Your task to perform on an android device: move a message to another label in the gmail app Image 0: 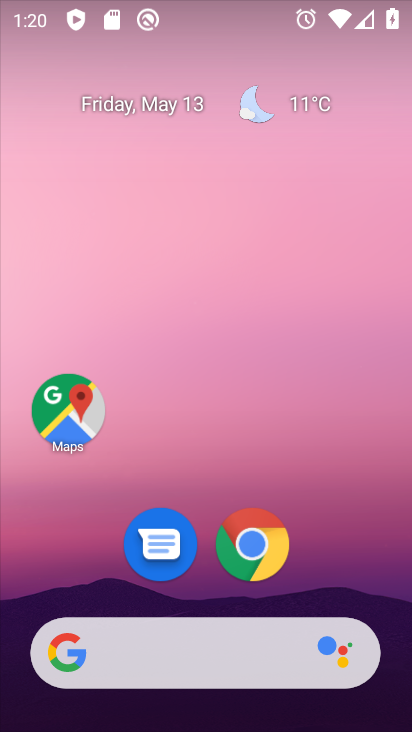
Step 0: drag from (220, 513) to (293, 210)
Your task to perform on an android device: move a message to another label in the gmail app Image 1: 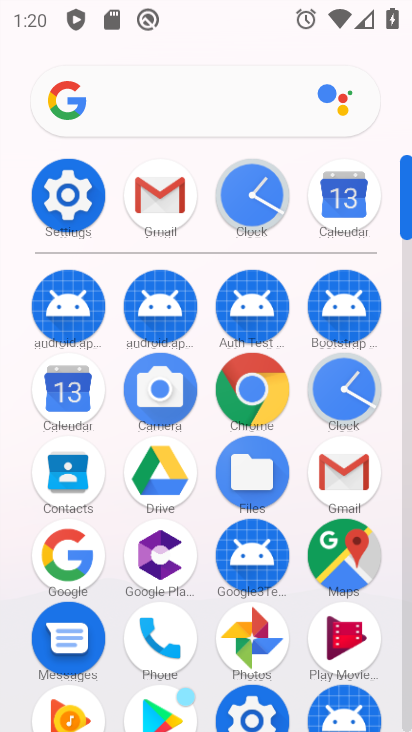
Step 1: click (153, 195)
Your task to perform on an android device: move a message to another label in the gmail app Image 2: 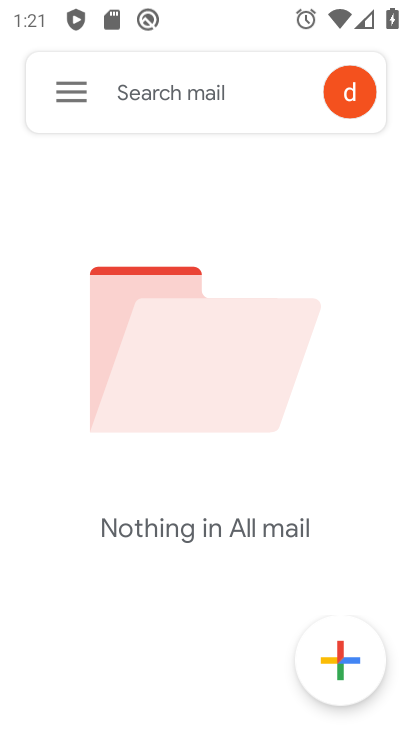
Step 2: click (80, 98)
Your task to perform on an android device: move a message to another label in the gmail app Image 3: 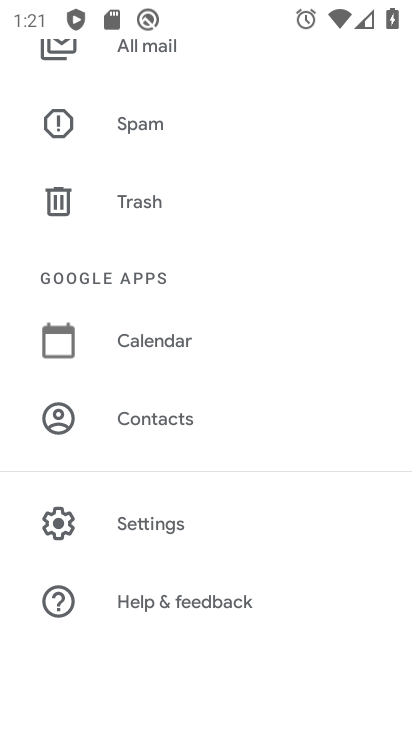
Step 3: drag from (215, 264) to (216, 527)
Your task to perform on an android device: move a message to another label in the gmail app Image 4: 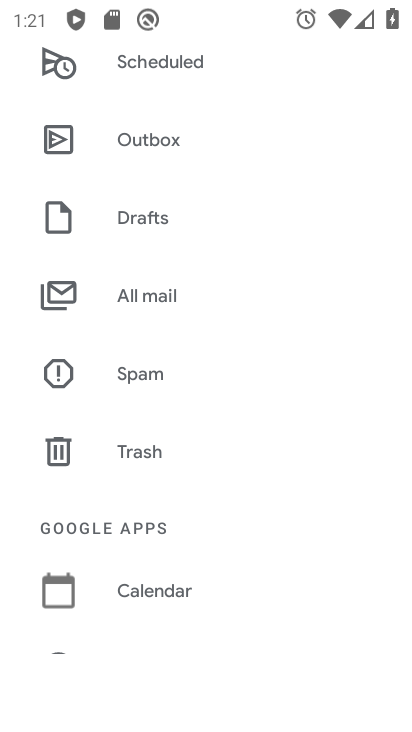
Step 4: click (163, 290)
Your task to perform on an android device: move a message to another label in the gmail app Image 5: 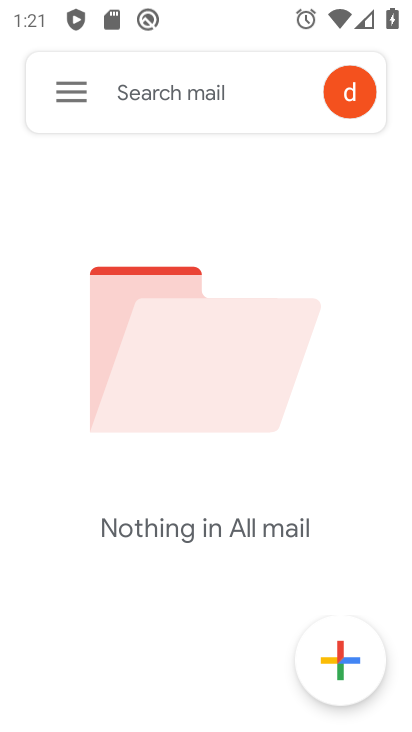
Step 5: task complete